Your task to perform on an android device: Open Google Maps Image 0: 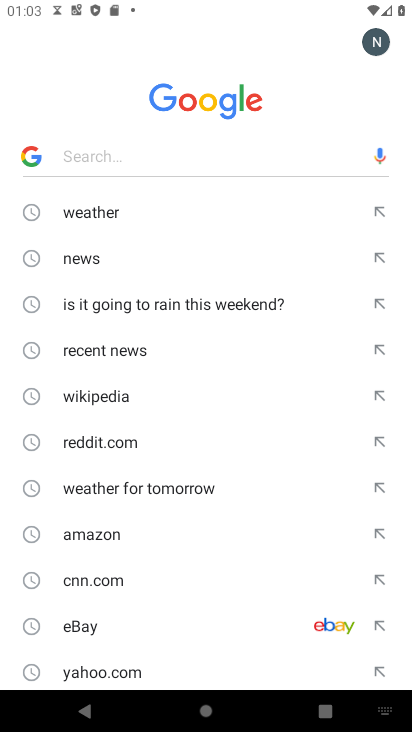
Step 0: press back button
Your task to perform on an android device: Open Google Maps Image 1: 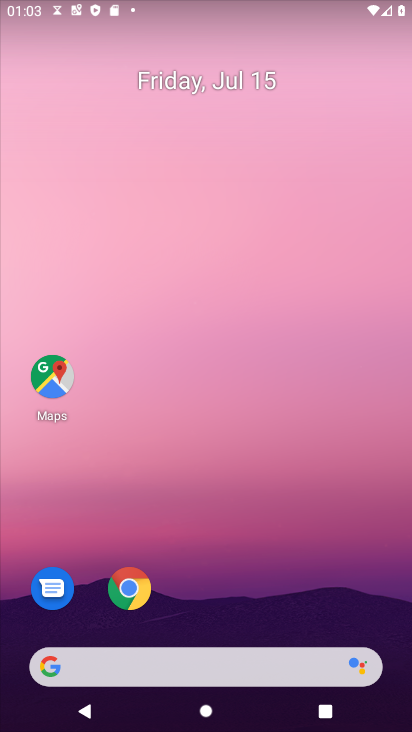
Step 1: click (38, 378)
Your task to perform on an android device: Open Google Maps Image 2: 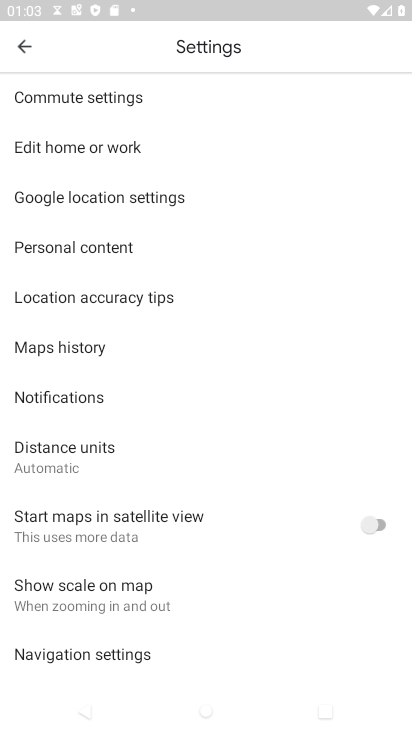
Step 2: click (29, 48)
Your task to perform on an android device: Open Google Maps Image 3: 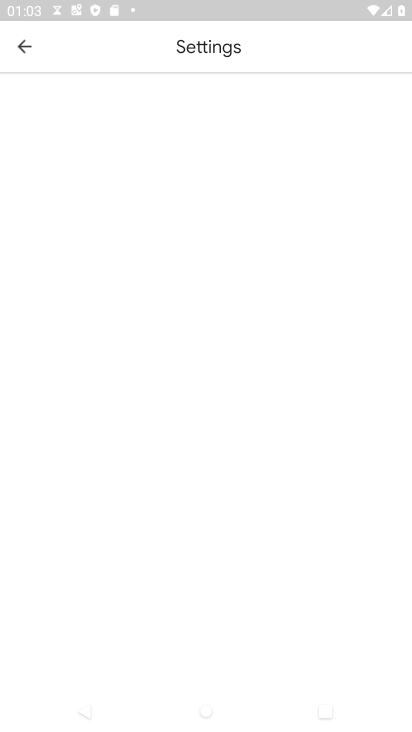
Step 3: click (29, 48)
Your task to perform on an android device: Open Google Maps Image 4: 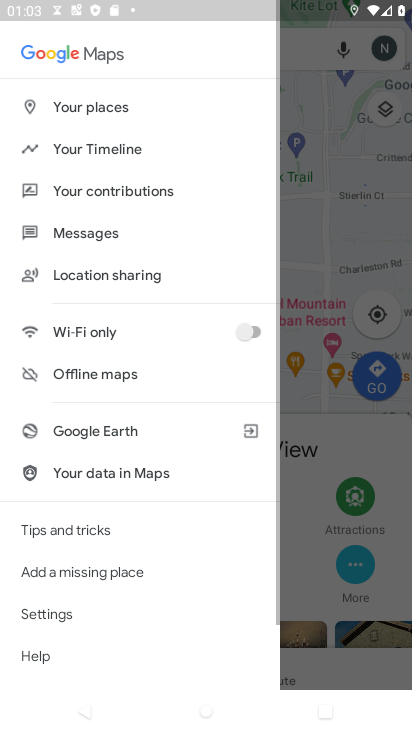
Step 4: click (312, 245)
Your task to perform on an android device: Open Google Maps Image 5: 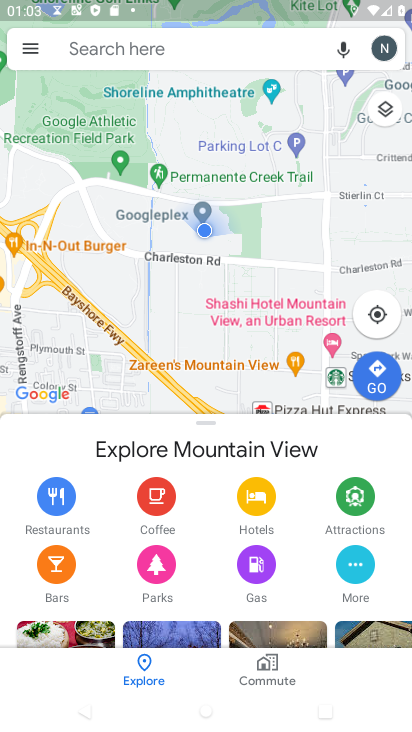
Step 5: task complete